Your task to perform on an android device: Open maps Image 0: 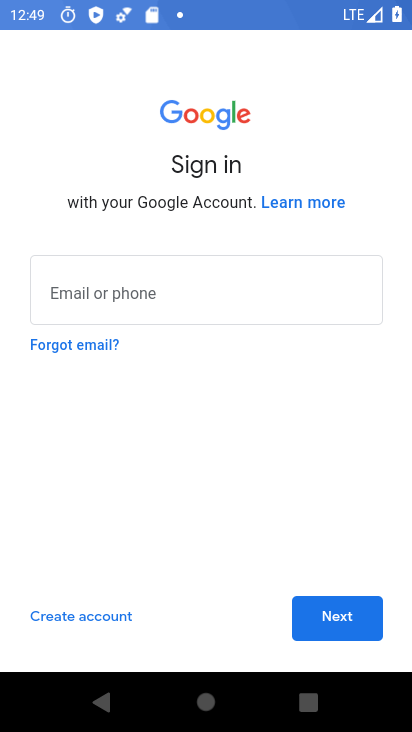
Step 0: press home button
Your task to perform on an android device: Open maps Image 1: 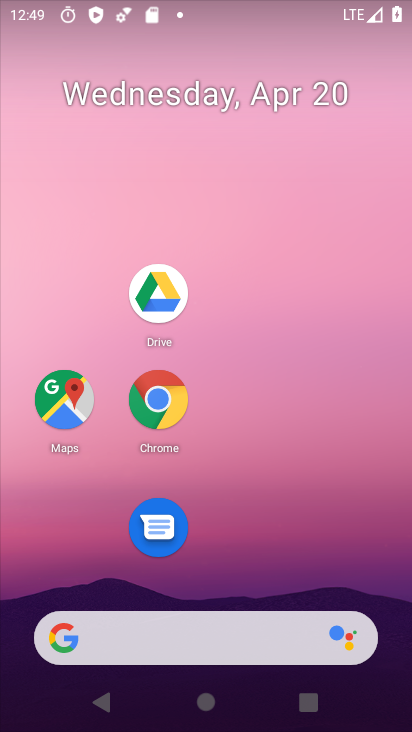
Step 1: drag from (294, 654) to (248, 374)
Your task to perform on an android device: Open maps Image 2: 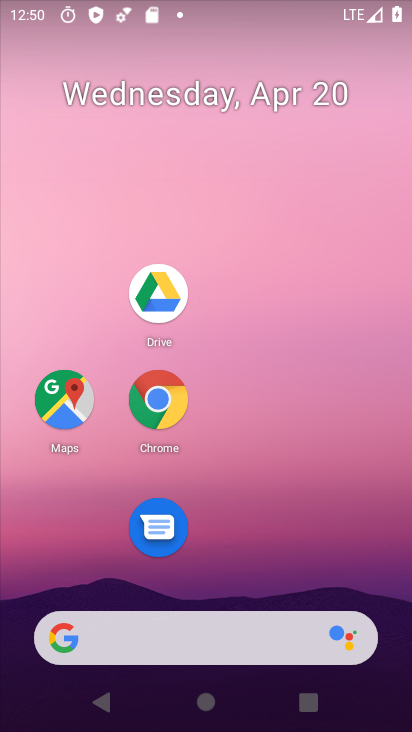
Step 2: drag from (259, 652) to (411, 150)
Your task to perform on an android device: Open maps Image 3: 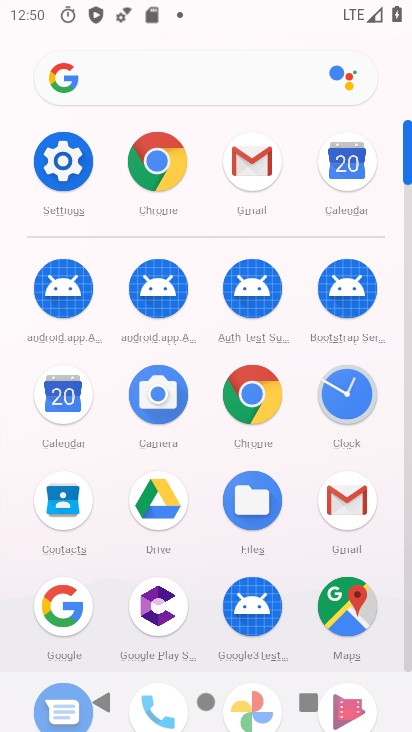
Step 3: click (333, 600)
Your task to perform on an android device: Open maps Image 4: 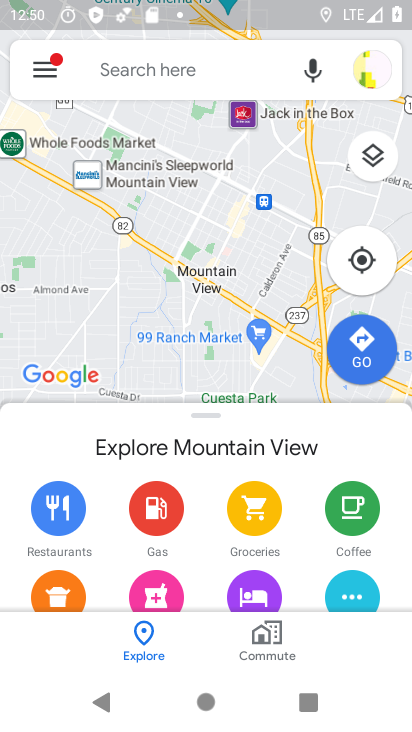
Step 4: click (360, 259)
Your task to perform on an android device: Open maps Image 5: 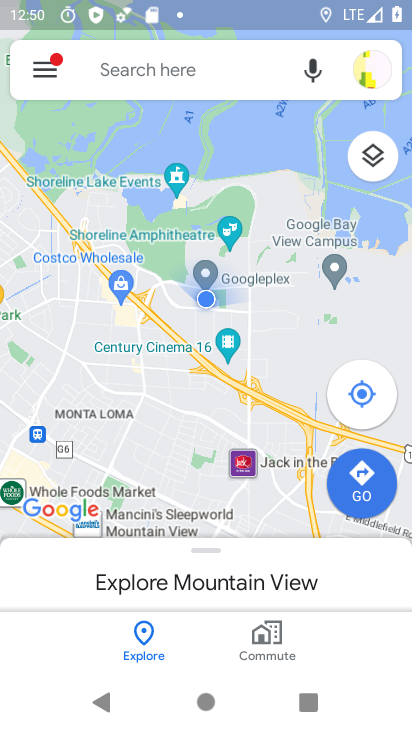
Step 5: task complete